Your task to perform on an android device: Open the stopwatch Image 0: 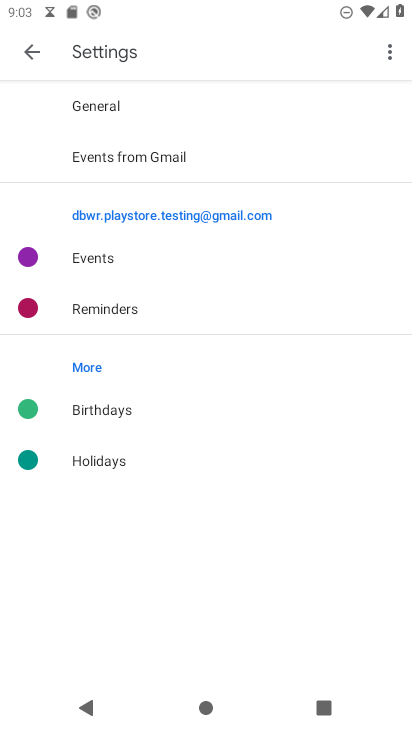
Step 0: press home button
Your task to perform on an android device: Open the stopwatch Image 1: 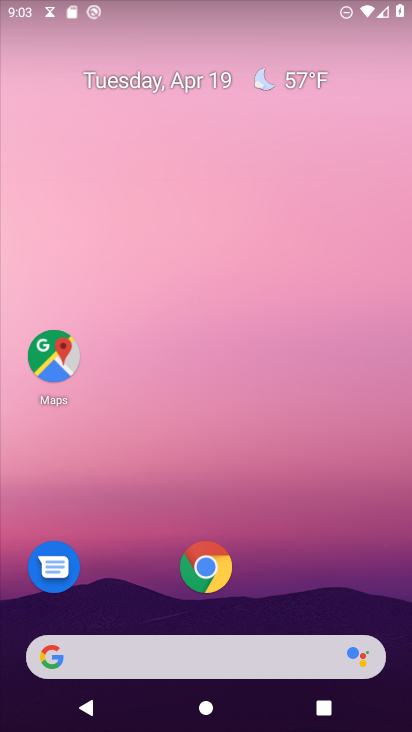
Step 1: drag from (326, 557) to (296, 151)
Your task to perform on an android device: Open the stopwatch Image 2: 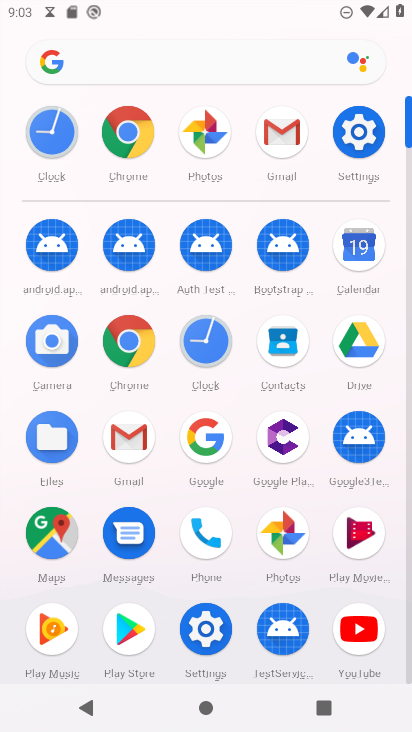
Step 2: click (207, 341)
Your task to perform on an android device: Open the stopwatch Image 3: 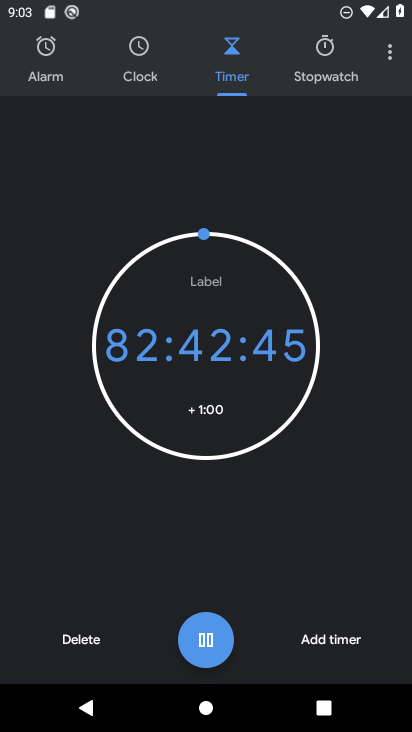
Step 3: click (323, 53)
Your task to perform on an android device: Open the stopwatch Image 4: 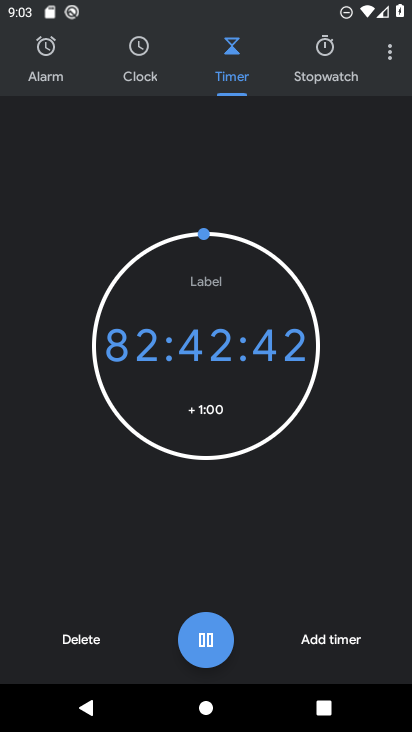
Step 4: click (323, 87)
Your task to perform on an android device: Open the stopwatch Image 5: 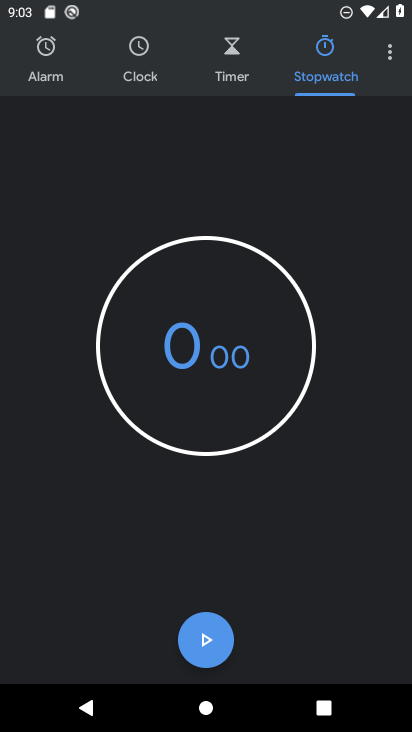
Step 5: click (218, 632)
Your task to perform on an android device: Open the stopwatch Image 6: 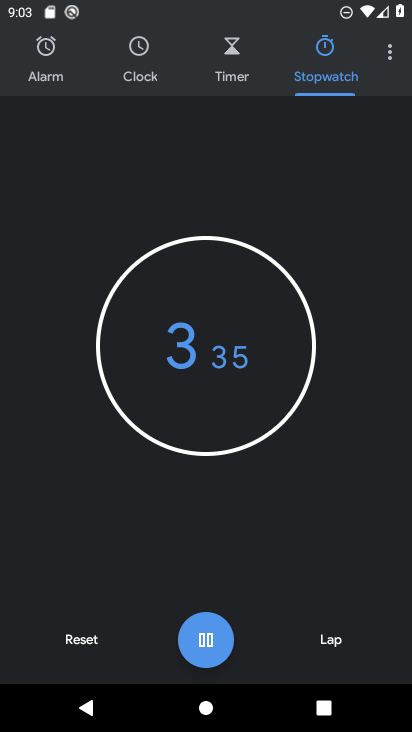
Step 6: task complete